Your task to perform on an android device: delete the emails in spam in the gmail app Image 0: 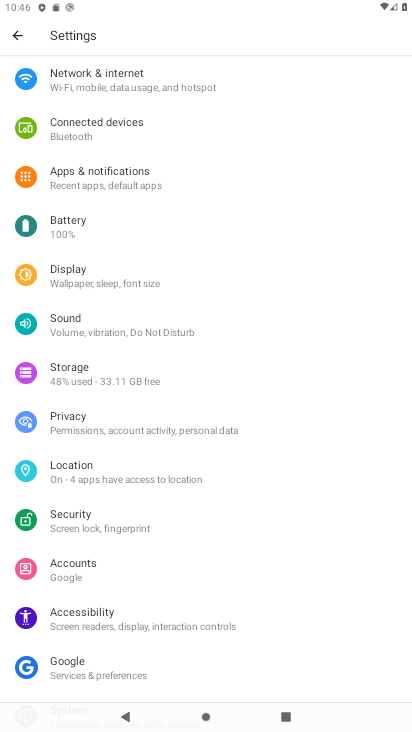
Step 0: press home button
Your task to perform on an android device: delete the emails in spam in the gmail app Image 1: 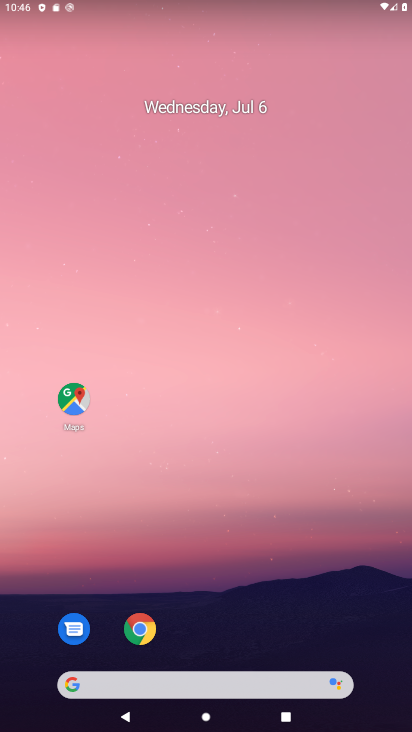
Step 1: drag from (188, 632) to (191, 73)
Your task to perform on an android device: delete the emails in spam in the gmail app Image 2: 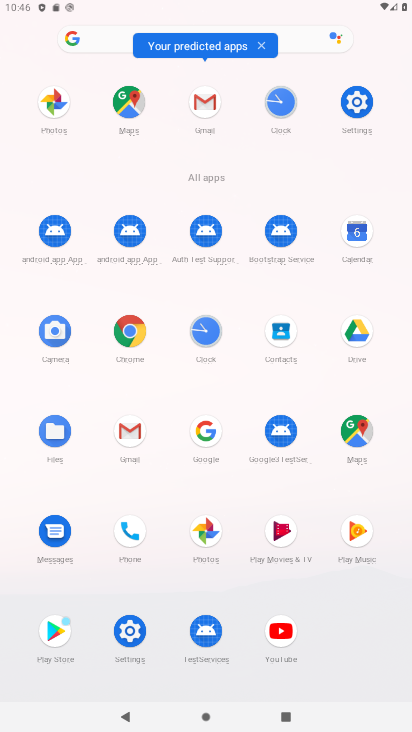
Step 2: click (206, 104)
Your task to perform on an android device: delete the emails in spam in the gmail app Image 3: 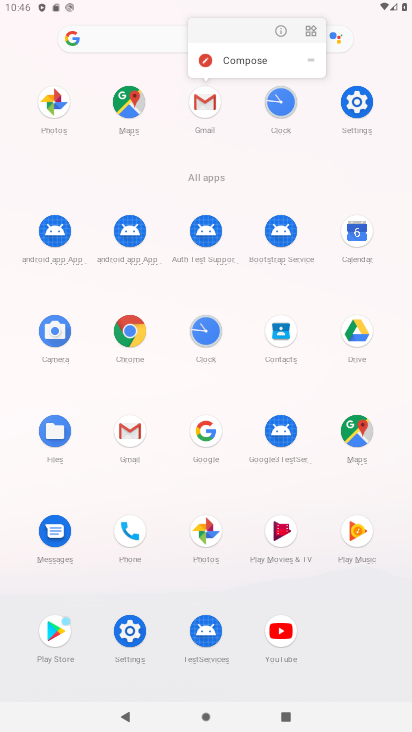
Step 3: click (205, 103)
Your task to perform on an android device: delete the emails in spam in the gmail app Image 4: 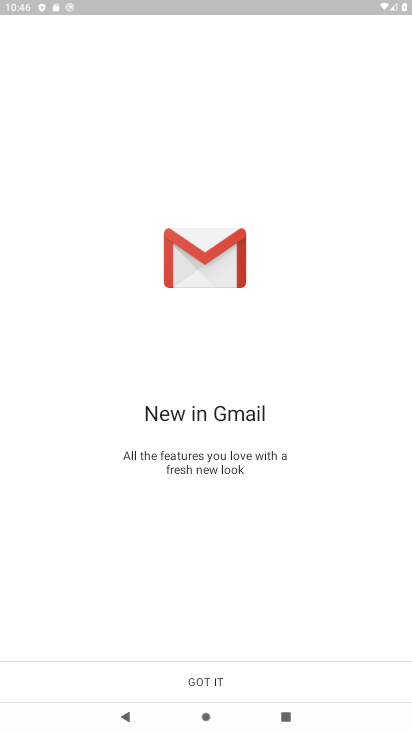
Step 4: click (197, 674)
Your task to perform on an android device: delete the emails in spam in the gmail app Image 5: 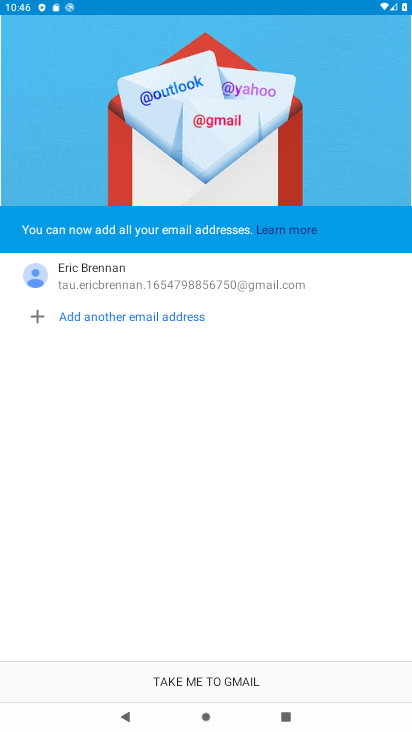
Step 5: click (197, 674)
Your task to perform on an android device: delete the emails in spam in the gmail app Image 6: 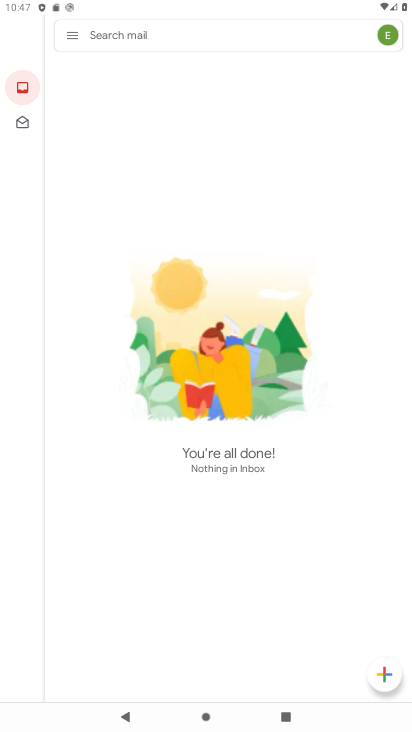
Step 6: task complete